Your task to perform on an android device: Open Yahoo.com Image 0: 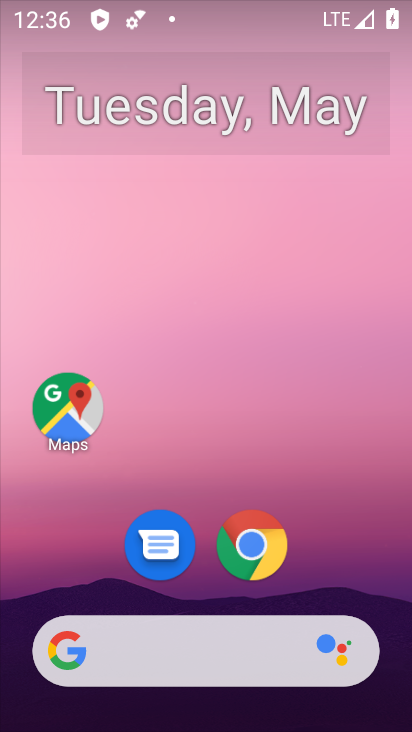
Step 0: drag from (343, 548) to (345, 223)
Your task to perform on an android device: Open Yahoo.com Image 1: 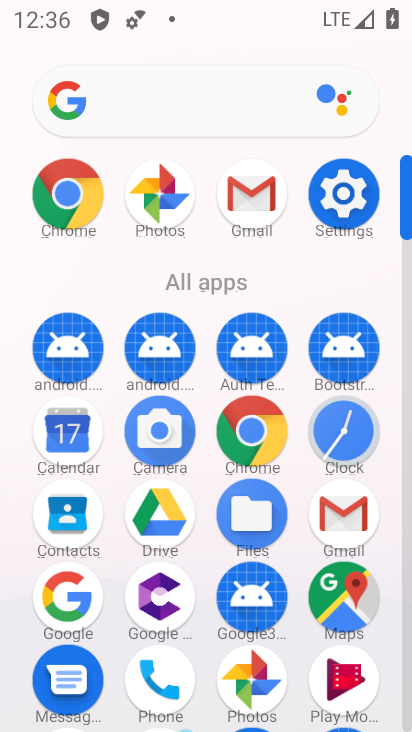
Step 1: click (258, 449)
Your task to perform on an android device: Open Yahoo.com Image 2: 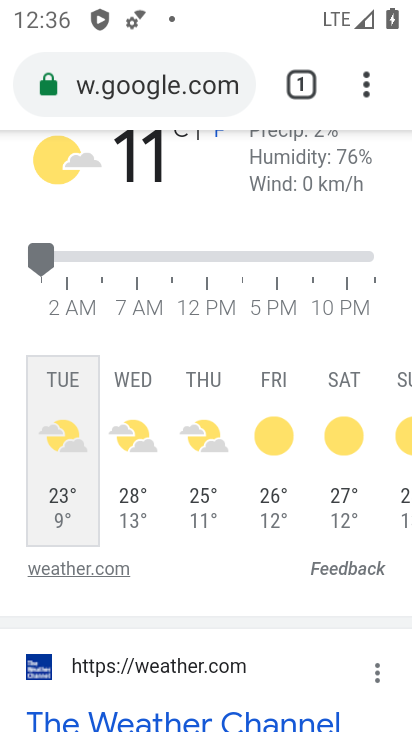
Step 2: click (172, 95)
Your task to perform on an android device: Open Yahoo.com Image 3: 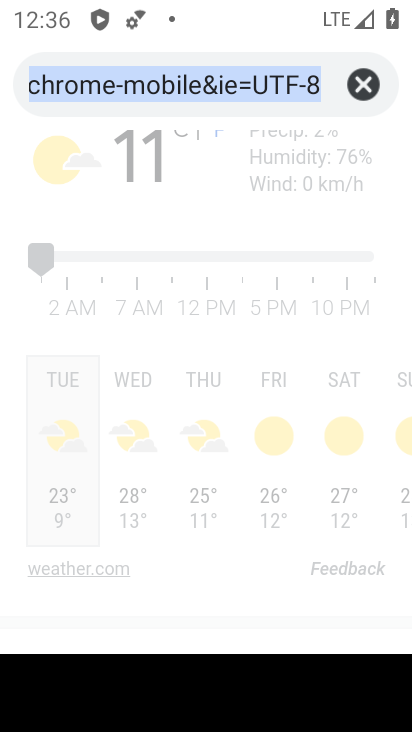
Step 3: click (358, 87)
Your task to perform on an android device: Open Yahoo.com Image 4: 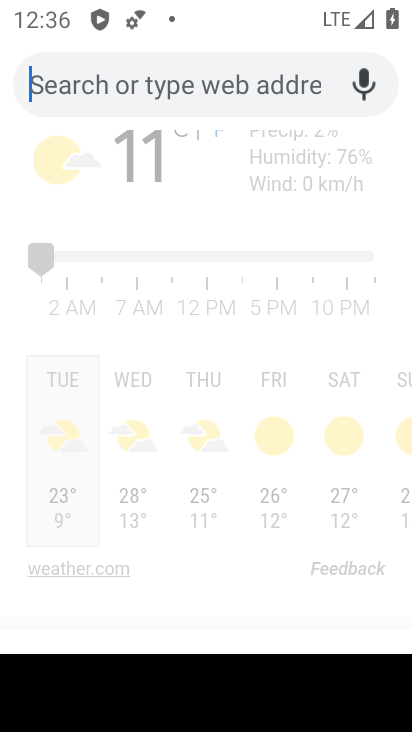
Step 4: type "yahoo.com"
Your task to perform on an android device: Open Yahoo.com Image 5: 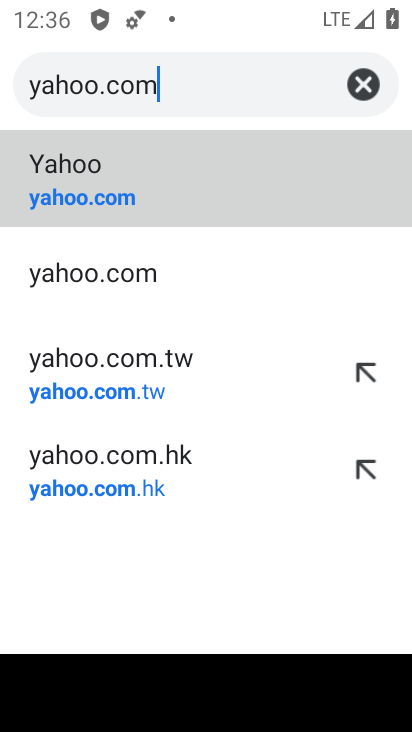
Step 5: click (119, 165)
Your task to perform on an android device: Open Yahoo.com Image 6: 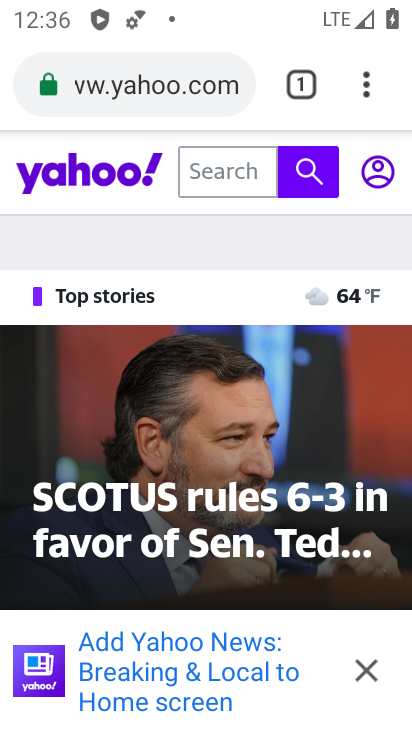
Step 6: task complete